Your task to perform on an android device: turn off picture-in-picture Image 0: 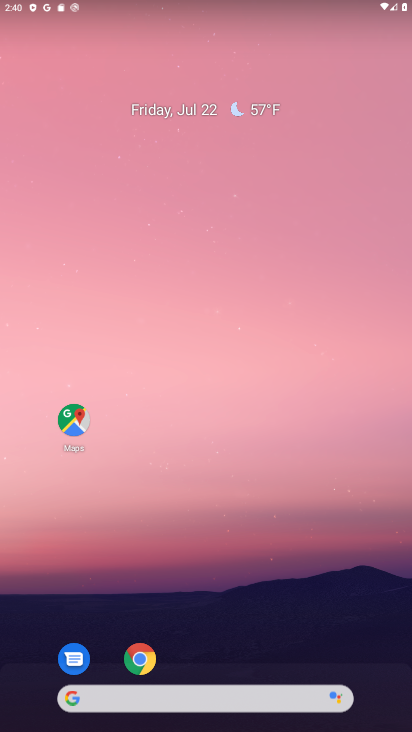
Step 0: click (138, 655)
Your task to perform on an android device: turn off picture-in-picture Image 1: 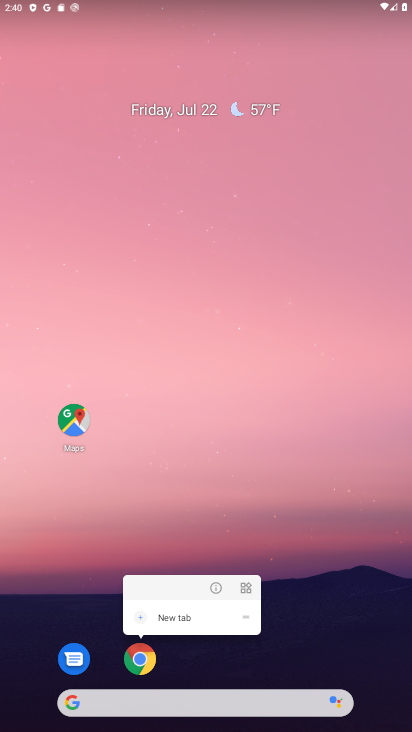
Step 1: click (219, 583)
Your task to perform on an android device: turn off picture-in-picture Image 2: 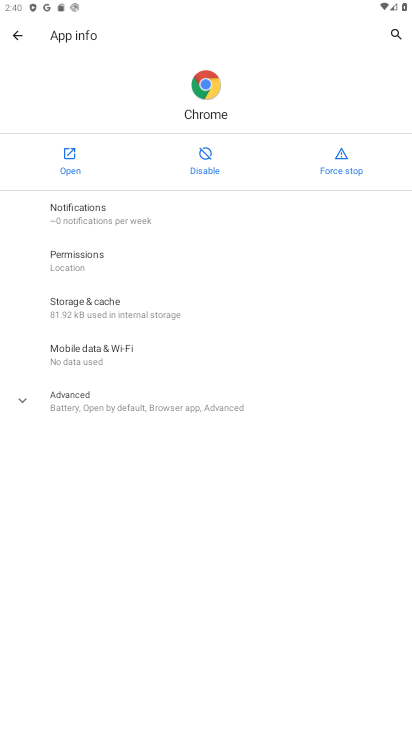
Step 2: click (101, 402)
Your task to perform on an android device: turn off picture-in-picture Image 3: 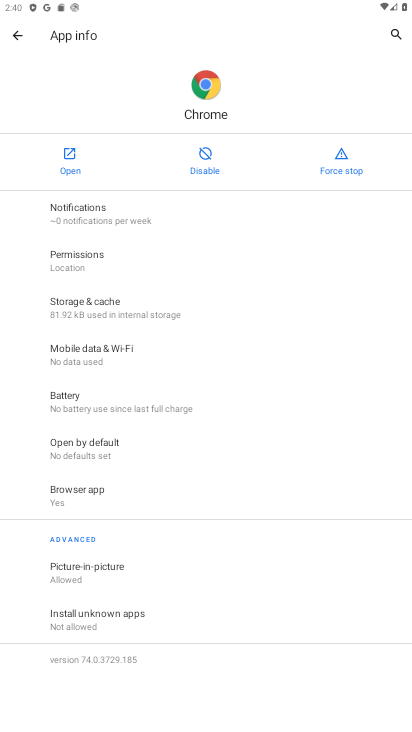
Step 3: click (117, 566)
Your task to perform on an android device: turn off picture-in-picture Image 4: 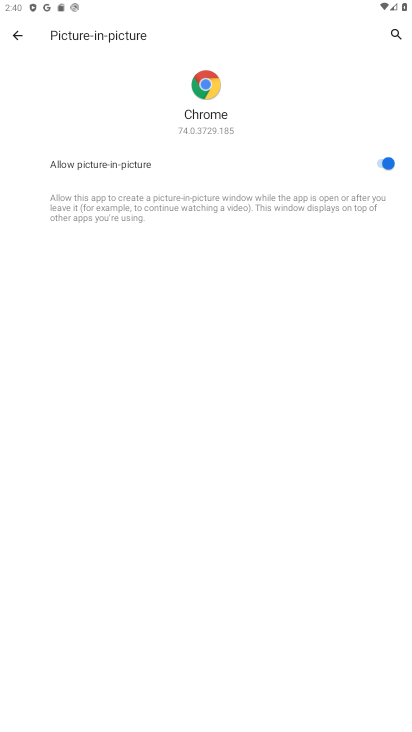
Step 4: click (377, 166)
Your task to perform on an android device: turn off picture-in-picture Image 5: 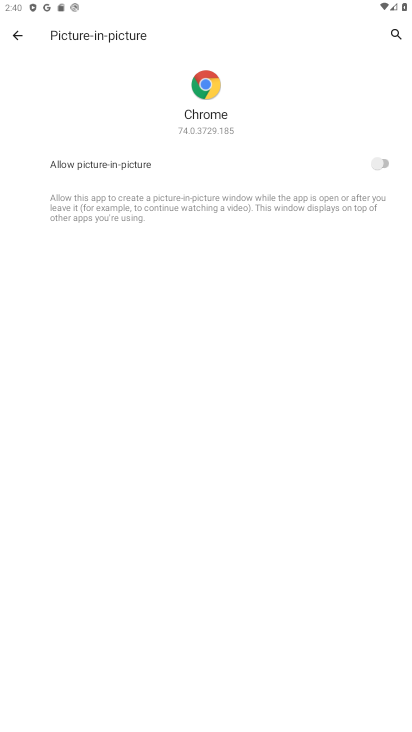
Step 5: task complete